Your task to perform on an android device: show emergency info Image 0: 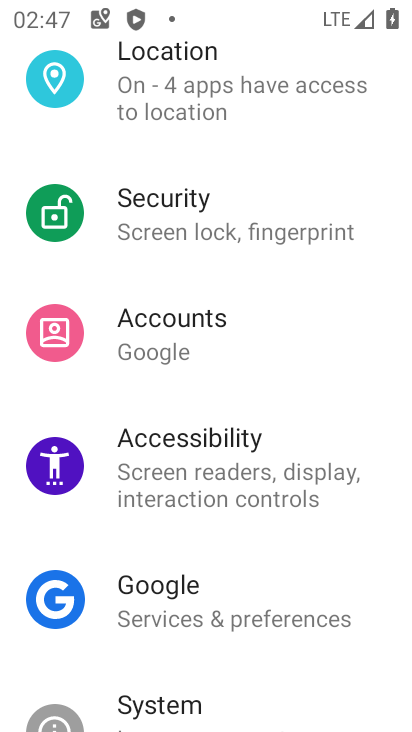
Step 0: press home button
Your task to perform on an android device: show emergency info Image 1: 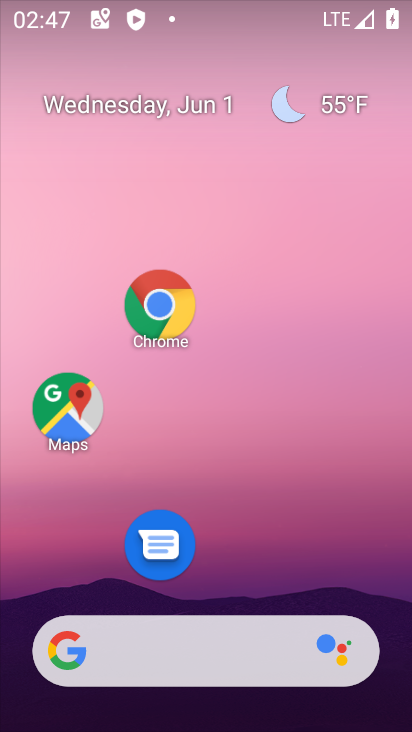
Step 1: drag from (220, 587) to (206, 274)
Your task to perform on an android device: show emergency info Image 2: 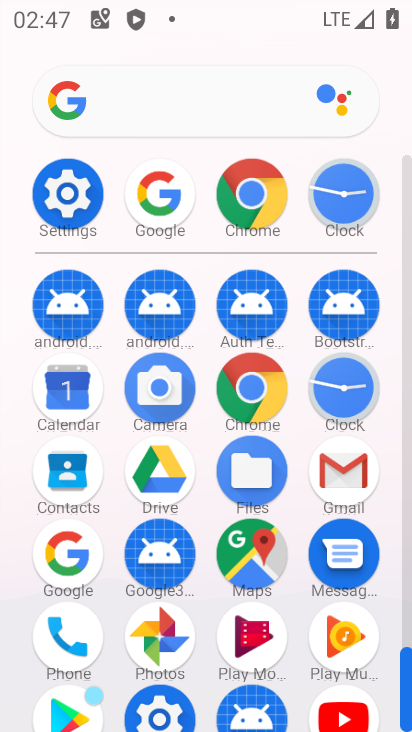
Step 2: click (56, 196)
Your task to perform on an android device: show emergency info Image 3: 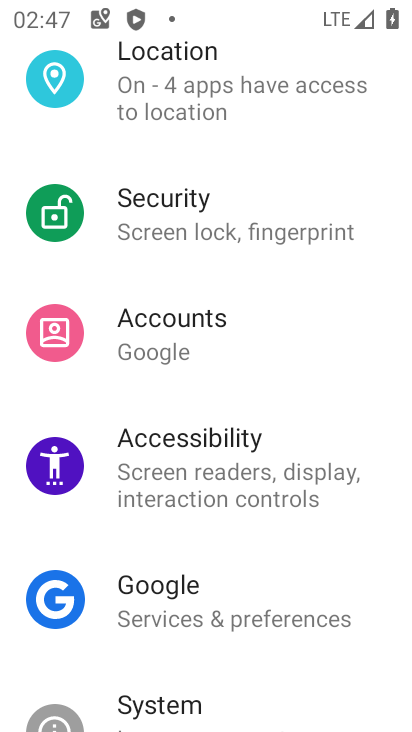
Step 3: drag from (218, 638) to (248, 261)
Your task to perform on an android device: show emergency info Image 4: 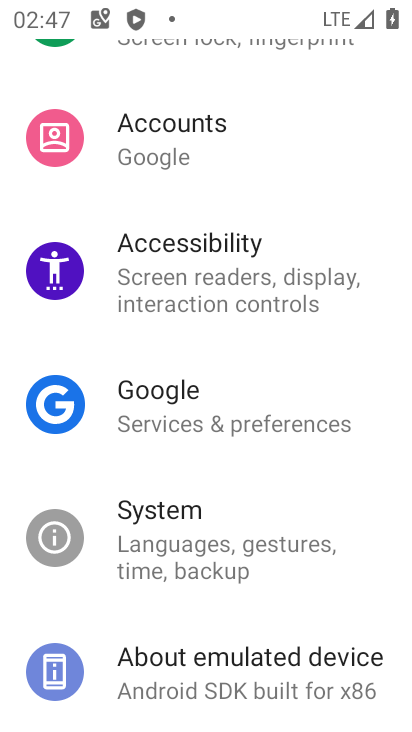
Step 4: click (218, 675)
Your task to perform on an android device: show emergency info Image 5: 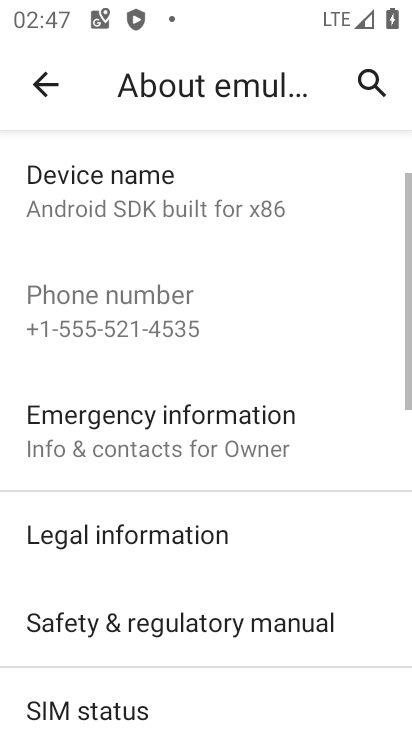
Step 5: click (199, 430)
Your task to perform on an android device: show emergency info Image 6: 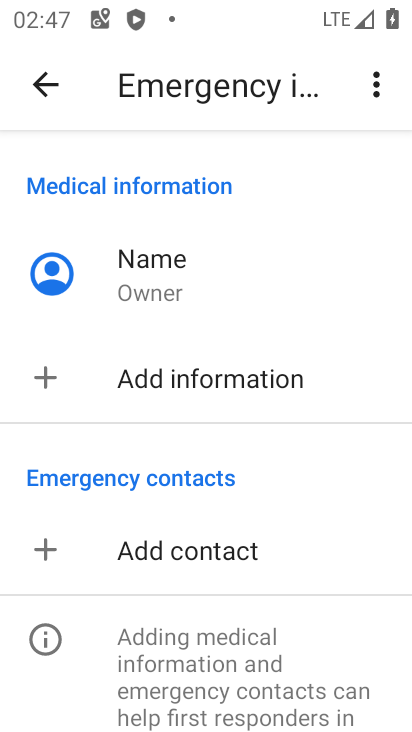
Step 6: task complete